Your task to perform on an android device: change the clock display to digital Image 0: 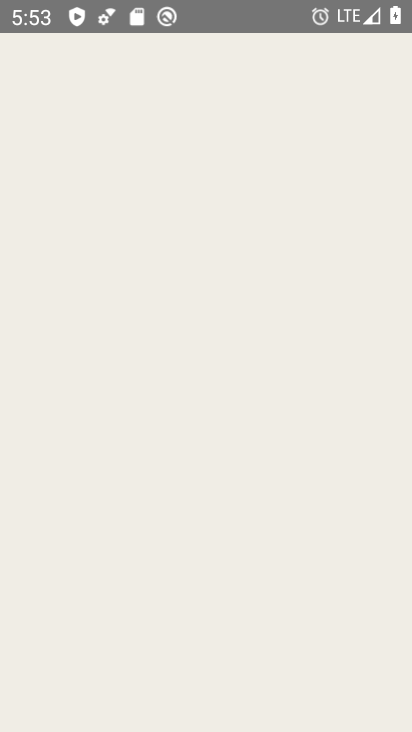
Step 0: press home button
Your task to perform on an android device: change the clock display to digital Image 1: 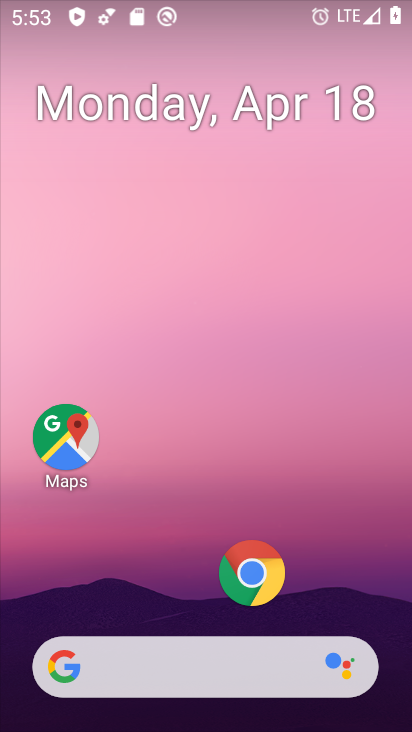
Step 1: drag from (172, 530) to (292, 31)
Your task to perform on an android device: change the clock display to digital Image 2: 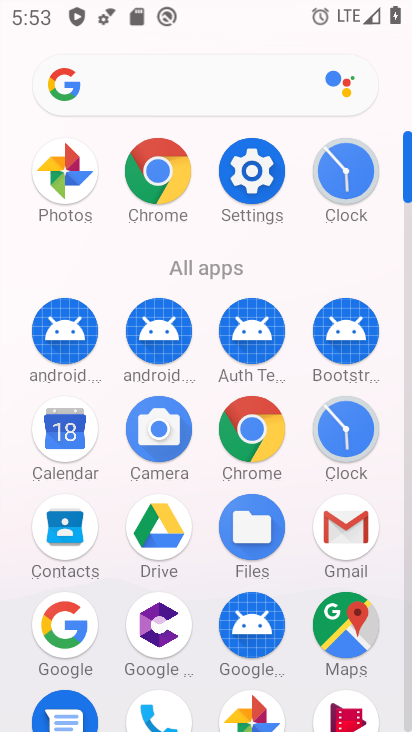
Step 2: drag from (204, 619) to (305, 2)
Your task to perform on an android device: change the clock display to digital Image 3: 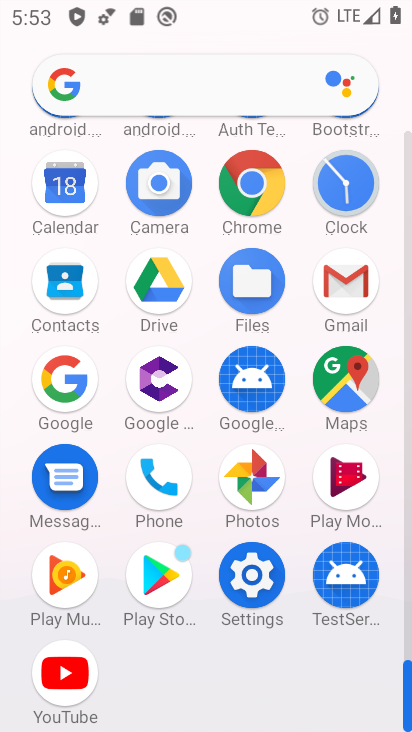
Step 3: click (257, 588)
Your task to perform on an android device: change the clock display to digital Image 4: 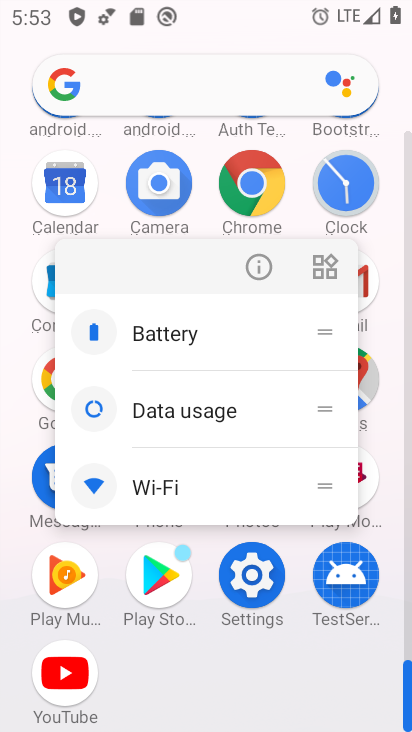
Step 4: click (259, 568)
Your task to perform on an android device: change the clock display to digital Image 5: 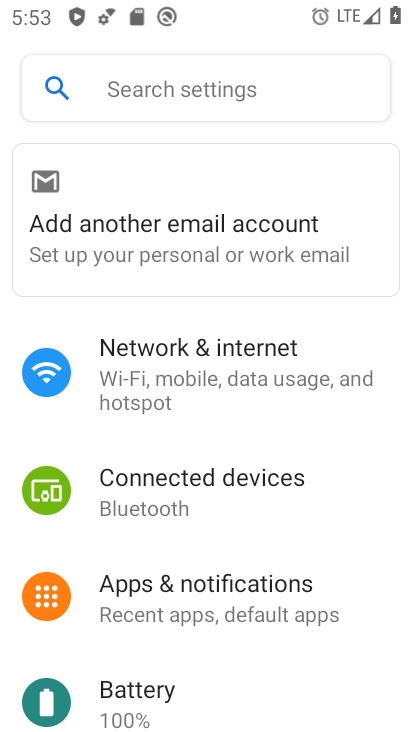
Step 5: drag from (207, 696) to (295, 177)
Your task to perform on an android device: change the clock display to digital Image 6: 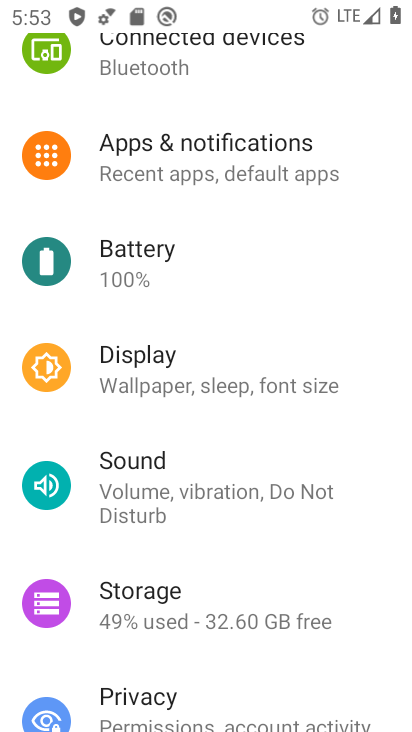
Step 6: click (189, 389)
Your task to perform on an android device: change the clock display to digital Image 7: 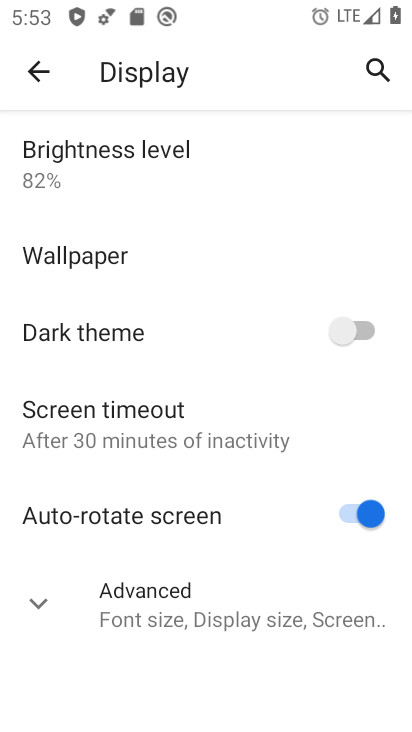
Step 7: click (149, 597)
Your task to perform on an android device: change the clock display to digital Image 8: 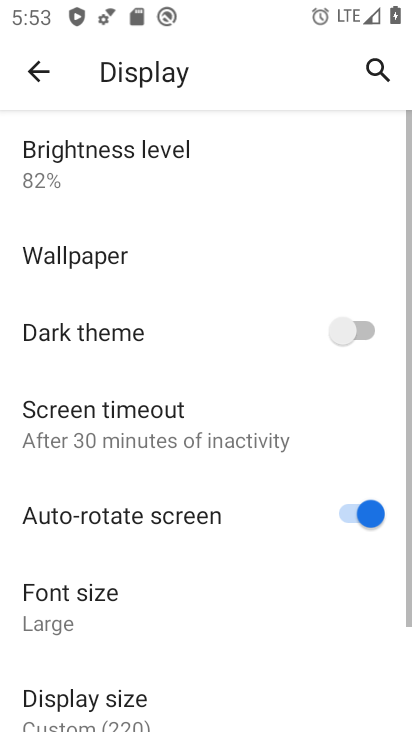
Step 8: drag from (138, 661) to (223, 142)
Your task to perform on an android device: change the clock display to digital Image 9: 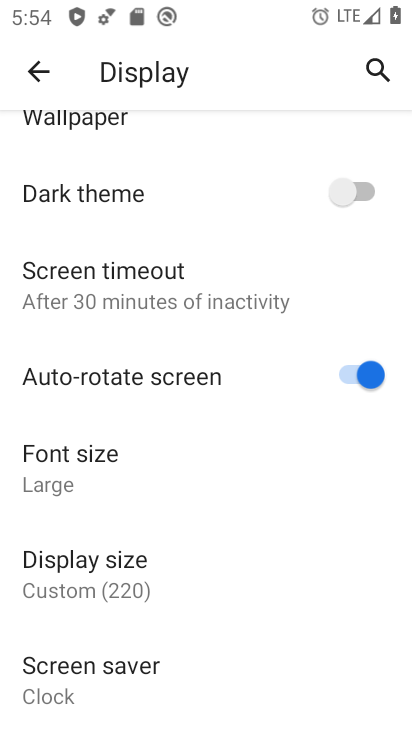
Step 9: click (95, 690)
Your task to perform on an android device: change the clock display to digital Image 10: 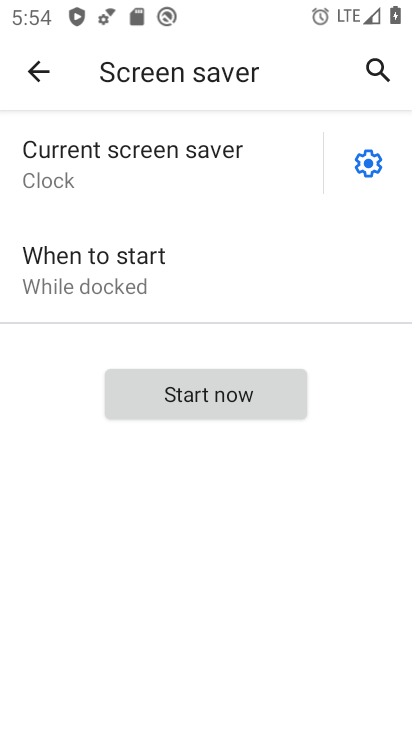
Step 10: click (373, 165)
Your task to perform on an android device: change the clock display to digital Image 11: 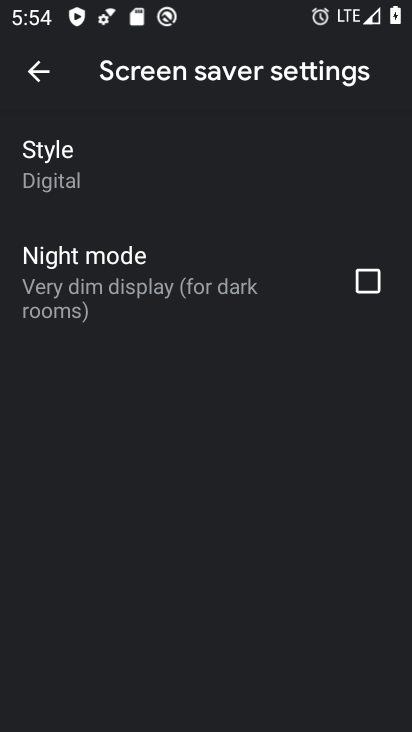
Step 11: click (58, 166)
Your task to perform on an android device: change the clock display to digital Image 12: 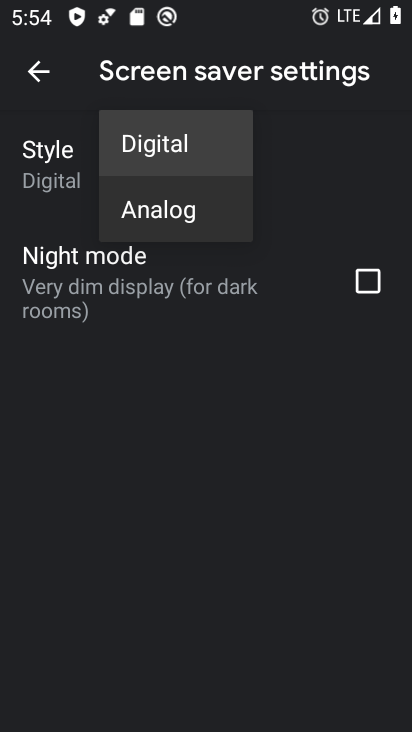
Step 12: click (158, 216)
Your task to perform on an android device: change the clock display to digital Image 13: 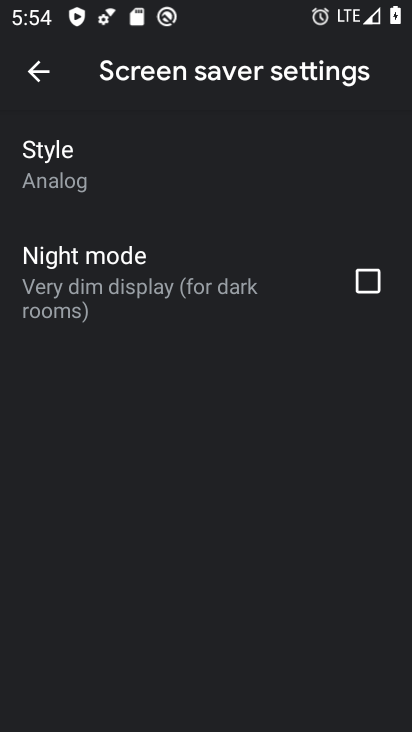
Step 13: task complete